Your task to perform on an android device: Go to Android settings Image 0: 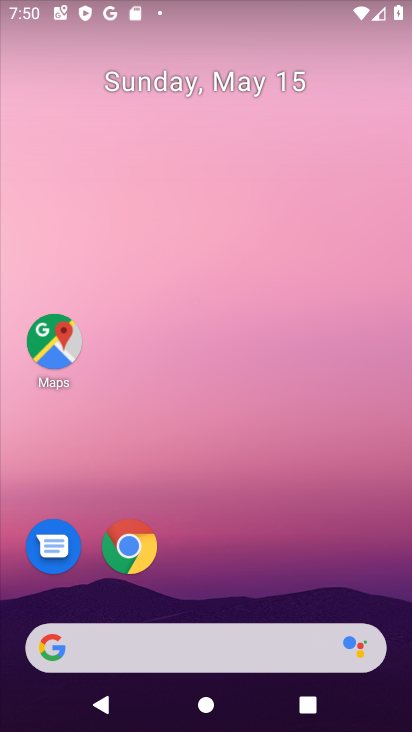
Step 0: drag from (273, 530) to (293, 6)
Your task to perform on an android device: Go to Android settings Image 1: 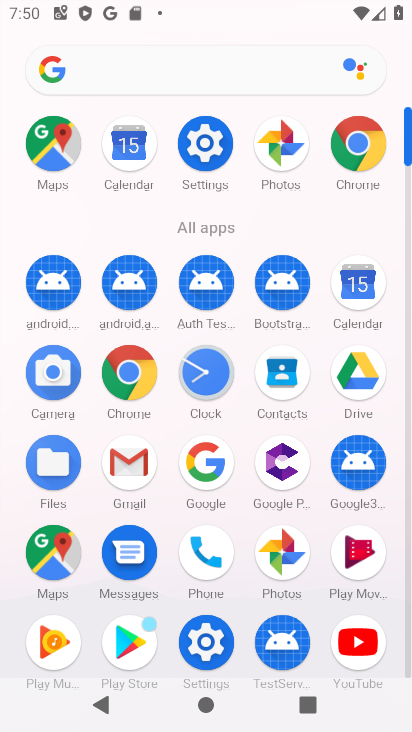
Step 1: click (207, 140)
Your task to perform on an android device: Go to Android settings Image 2: 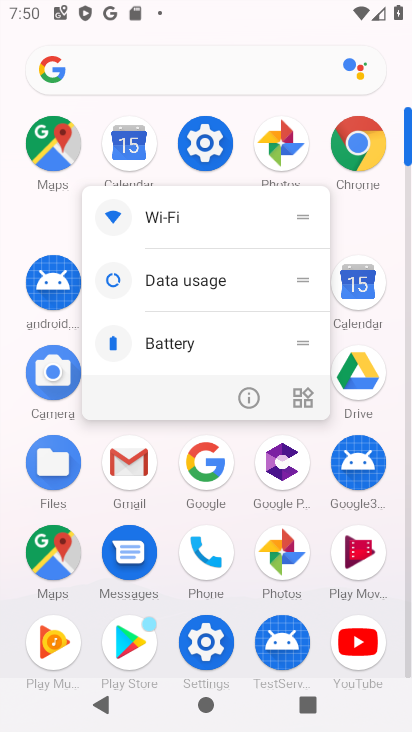
Step 2: click (207, 137)
Your task to perform on an android device: Go to Android settings Image 3: 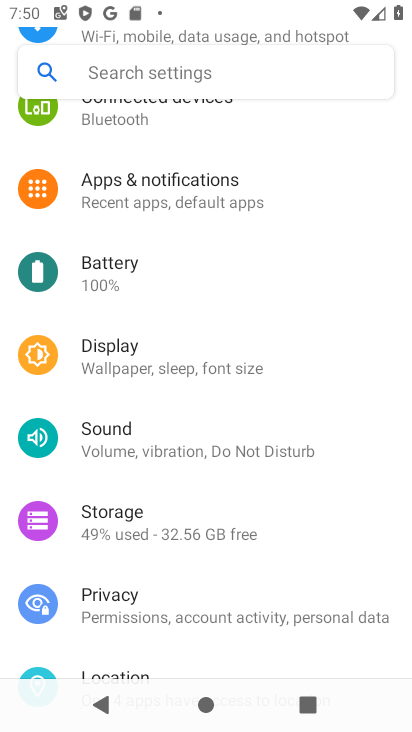
Step 3: drag from (183, 548) to (215, 146)
Your task to perform on an android device: Go to Android settings Image 4: 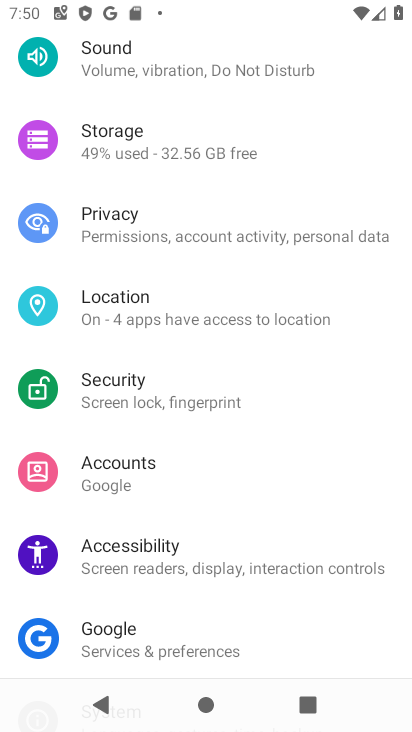
Step 4: drag from (199, 481) to (232, 165)
Your task to perform on an android device: Go to Android settings Image 5: 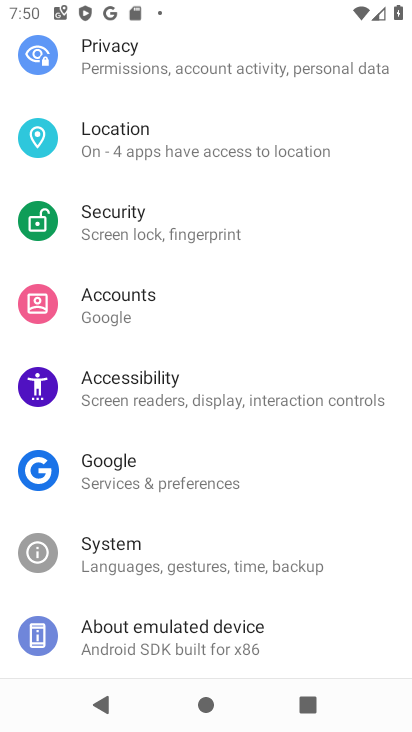
Step 5: click (155, 622)
Your task to perform on an android device: Go to Android settings Image 6: 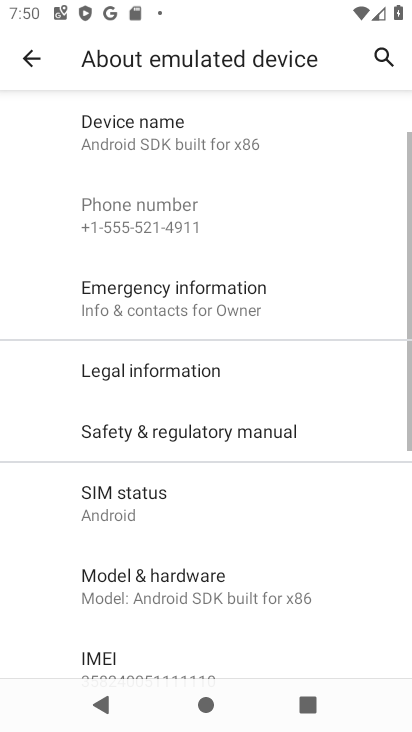
Step 6: task complete